Your task to perform on an android device: What's on my calendar tomorrow? Image 0: 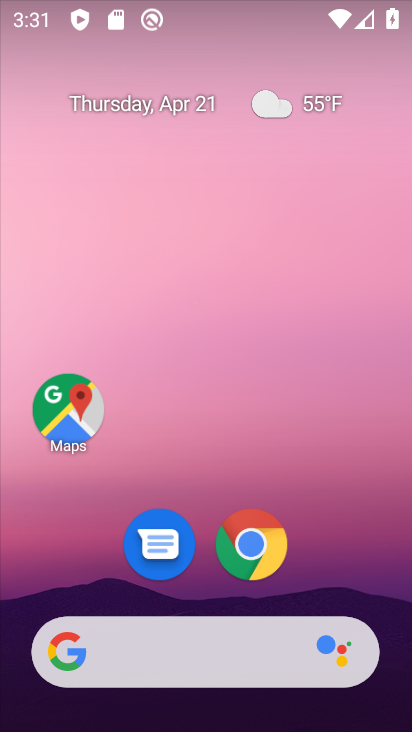
Step 0: click (272, 528)
Your task to perform on an android device: What's on my calendar tomorrow? Image 1: 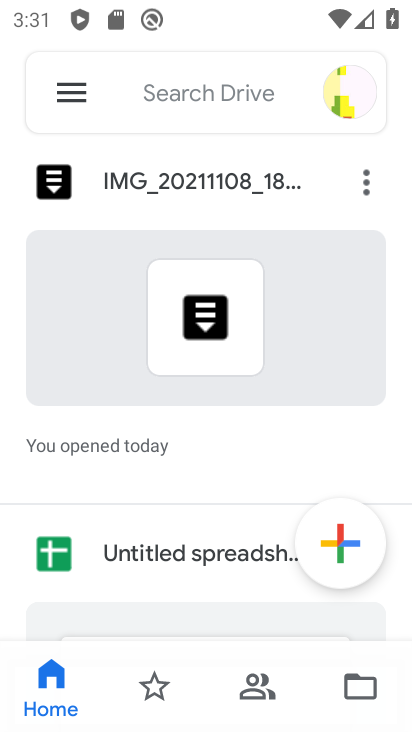
Step 1: press home button
Your task to perform on an android device: What's on my calendar tomorrow? Image 2: 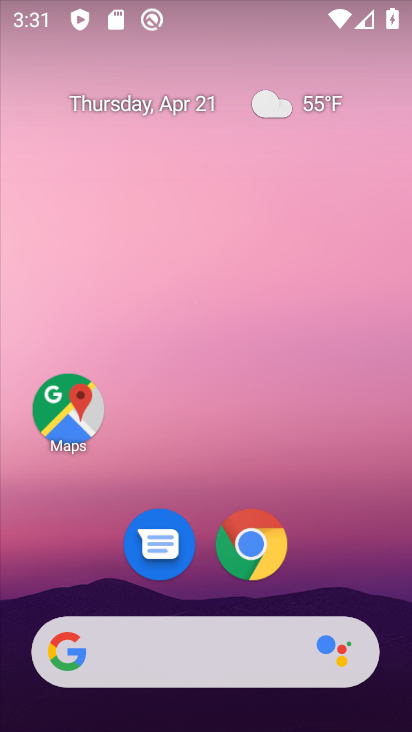
Step 2: drag from (257, 642) to (259, 232)
Your task to perform on an android device: What's on my calendar tomorrow? Image 3: 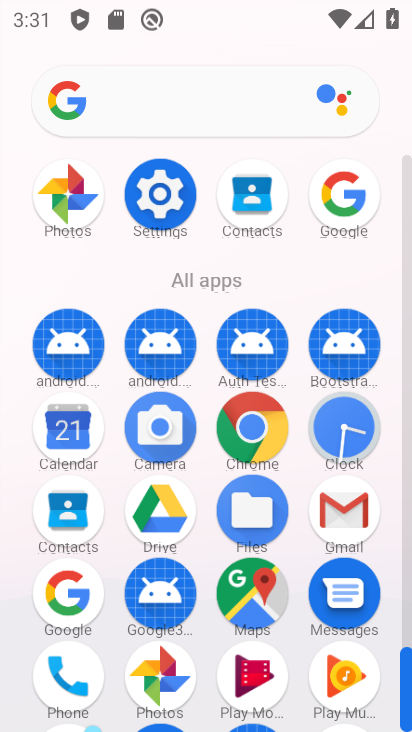
Step 3: click (70, 437)
Your task to perform on an android device: What's on my calendar tomorrow? Image 4: 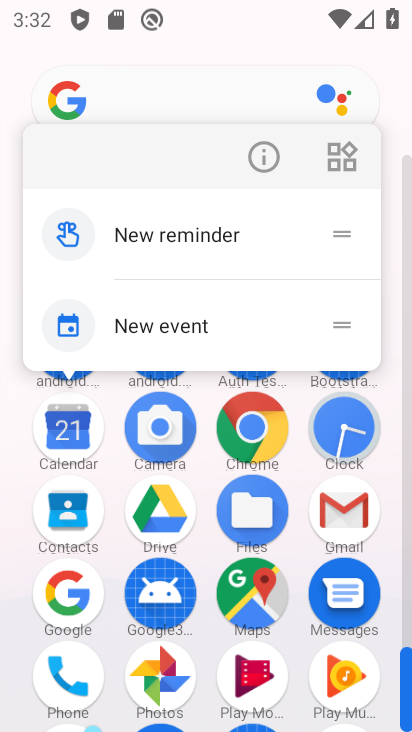
Step 4: click (52, 434)
Your task to perform on an android device: What's on my calendar tomorrow? Image 5: 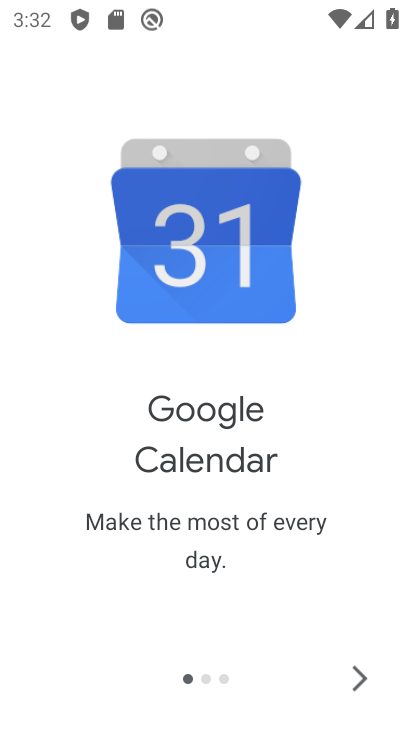
Step 5: click (352, 675)
Your task to perform on an android device: What's on my calendar tomorrow? Image 6: 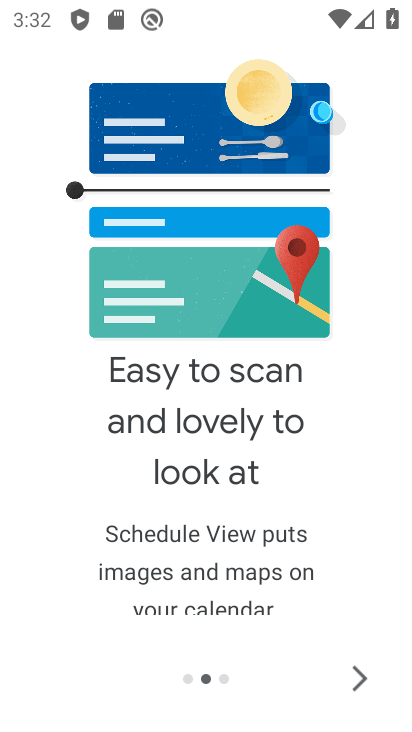
Step 6: click (352, 675)
Your task to perform on an android device: What's on my calendar tomorrow? Image 7: 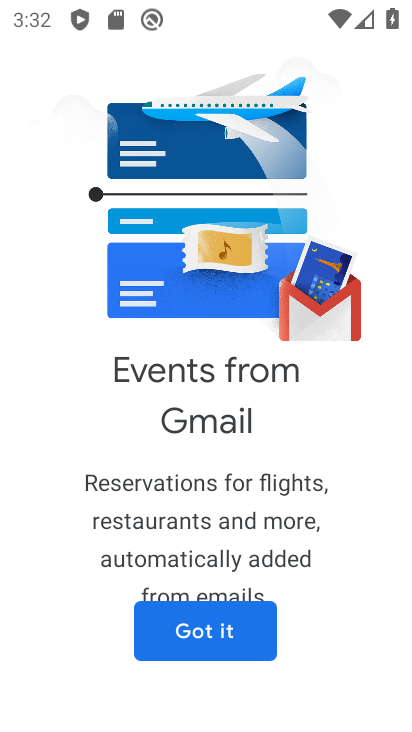
Step 7: click (216, 639)
Your task to perform on an android device: What's on my calendar tomorrow? Image 8: 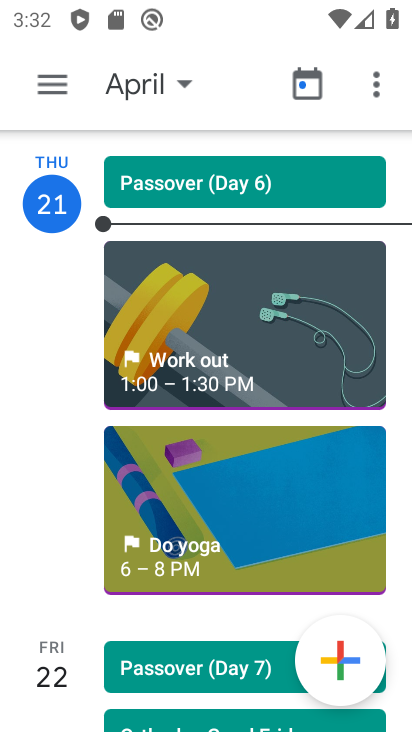
Step 8: task complete